Your task to perform on an android device: allow cookies in the chrome app Image 0: 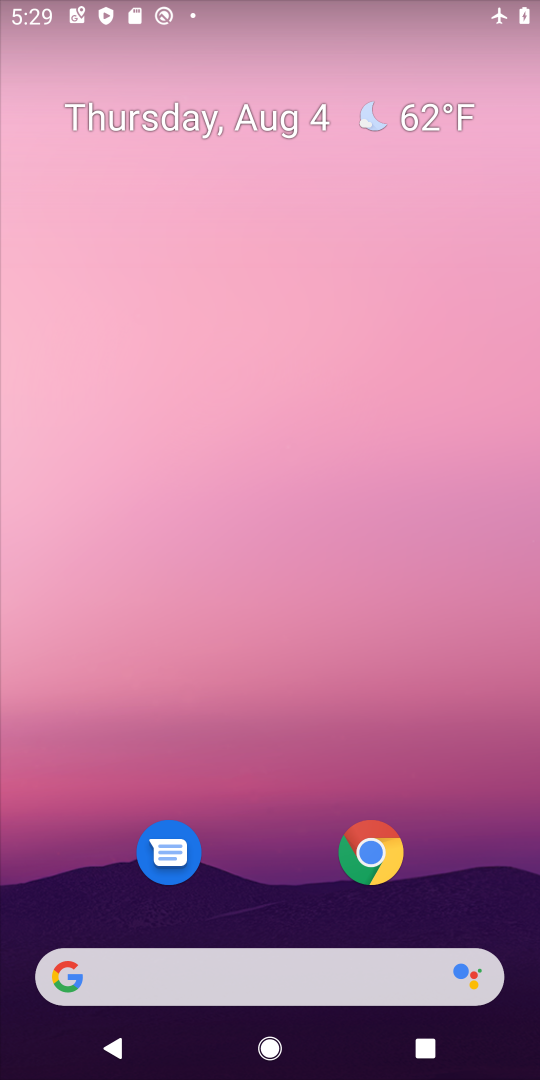
Step 0: press home button
Your task to perform on an android device: allow cookies in the chrome app Image 1: 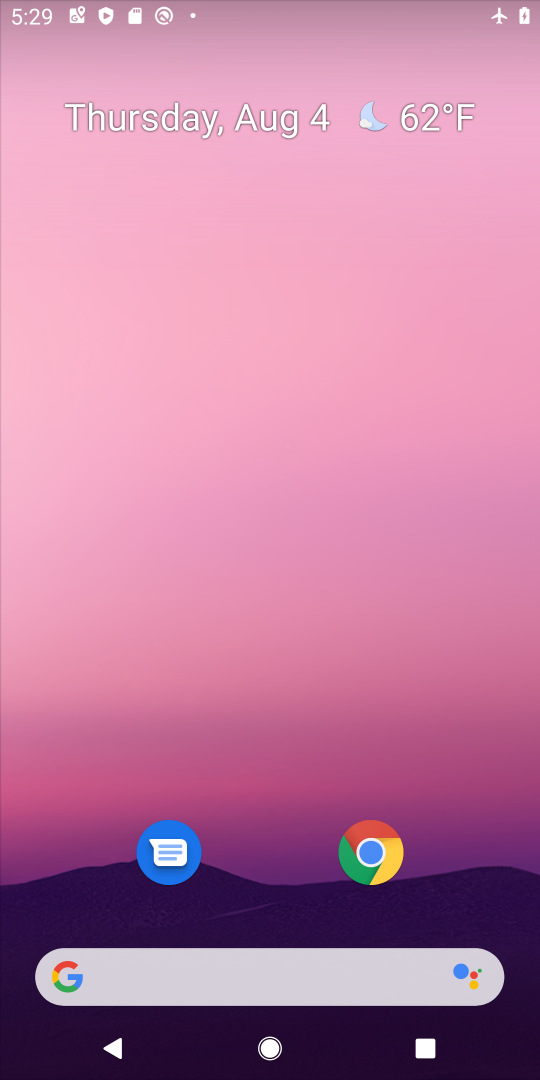
Step 1: drag from (296, 913) to (292, 68)
Your task to perform on an android device: allow cookies in the chrome app Image 2: 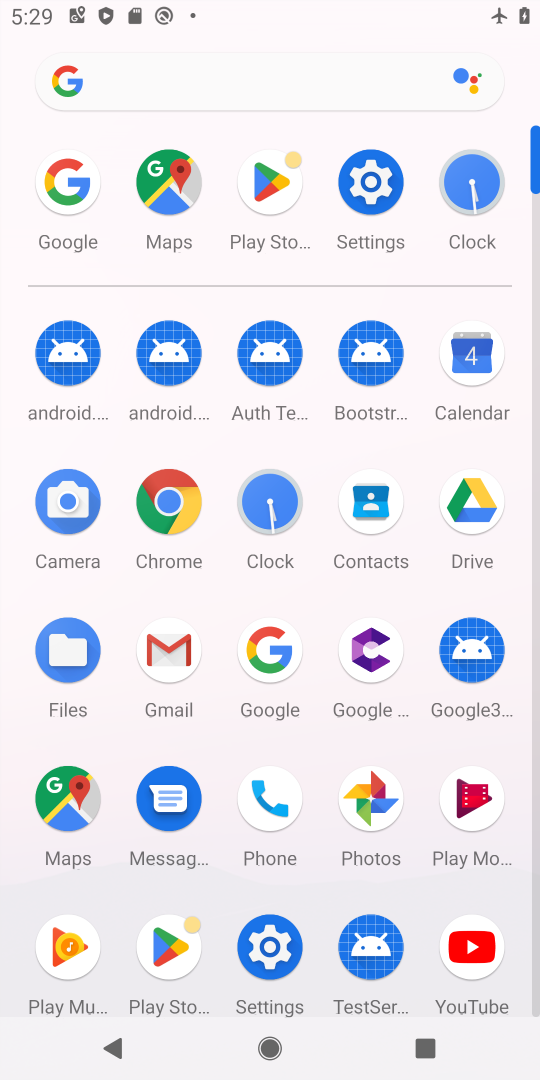
Step 2: click (172, 506)
Your task to perform on an android device: allow cookies in the chrome app Image 3: 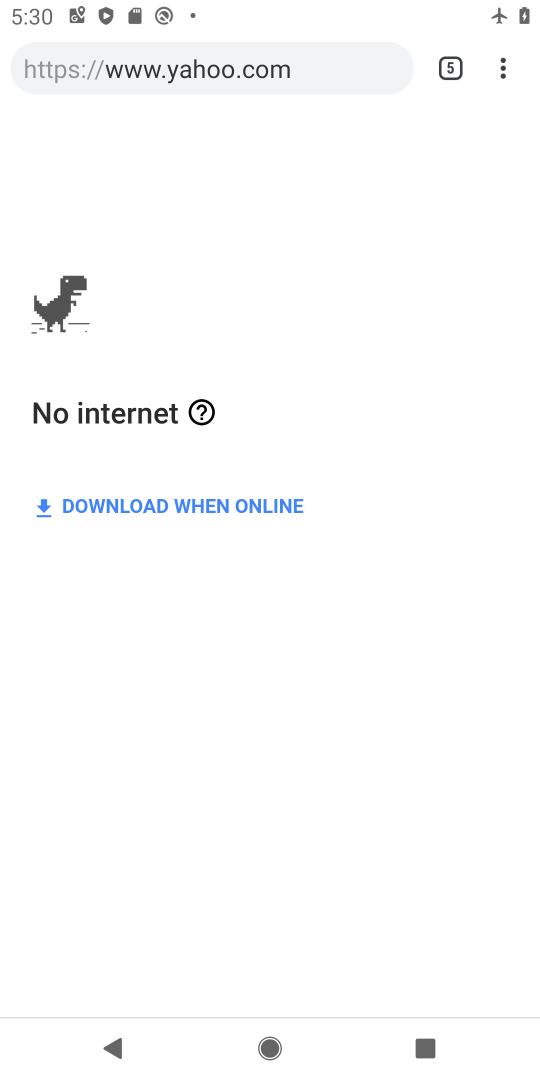
Step 3: click (507, 80)
Your task to perform on an android device: allow cookies in the chrome app Image 4: 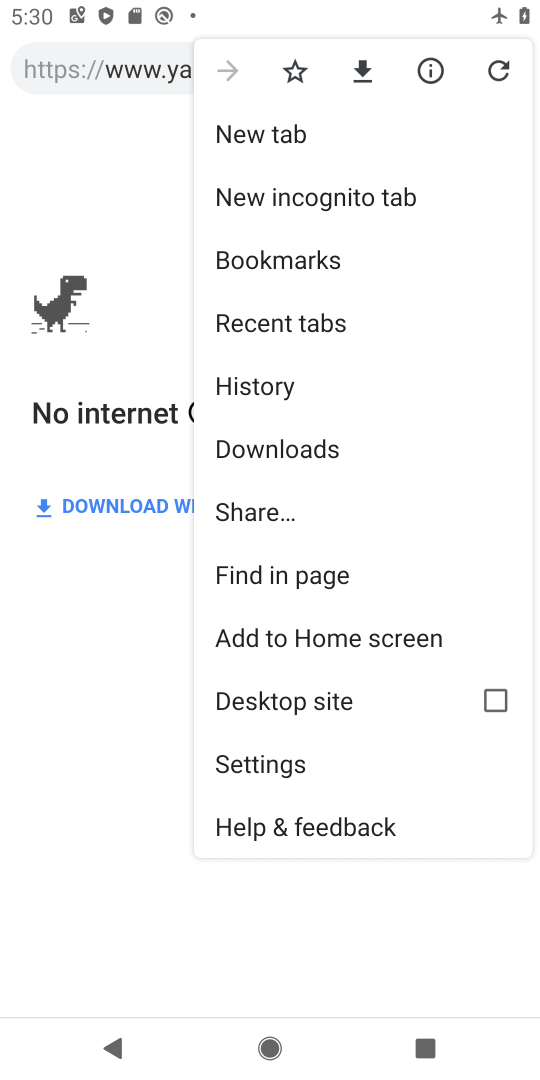
Step 4: click (266, 761)
Your task to perform on an android device: allow cookies in the chrome app Image 5: 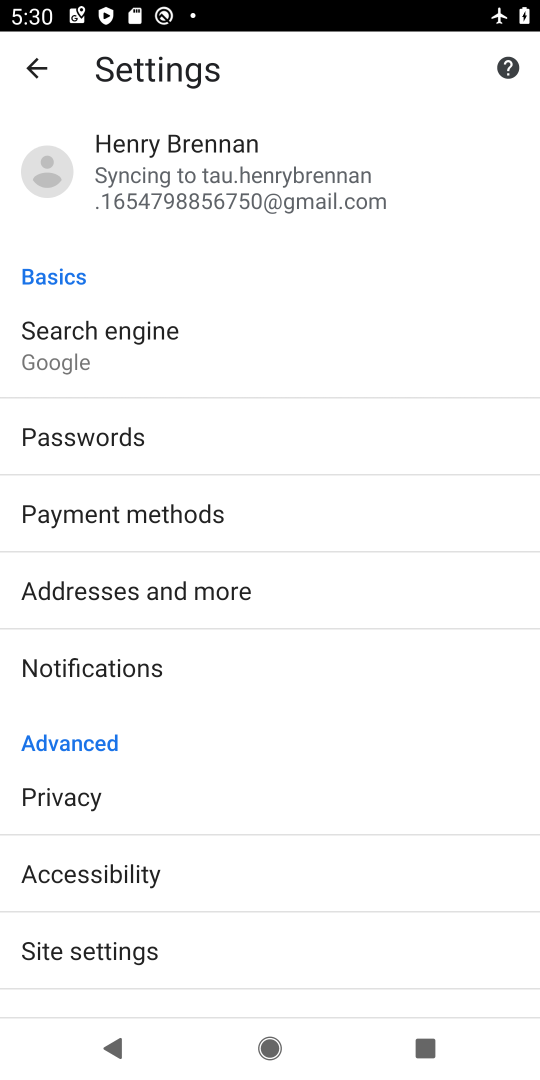
Step 5: click (72, 943)
Your task to perform on an android device: allow cookies in the chrome app Image 6: 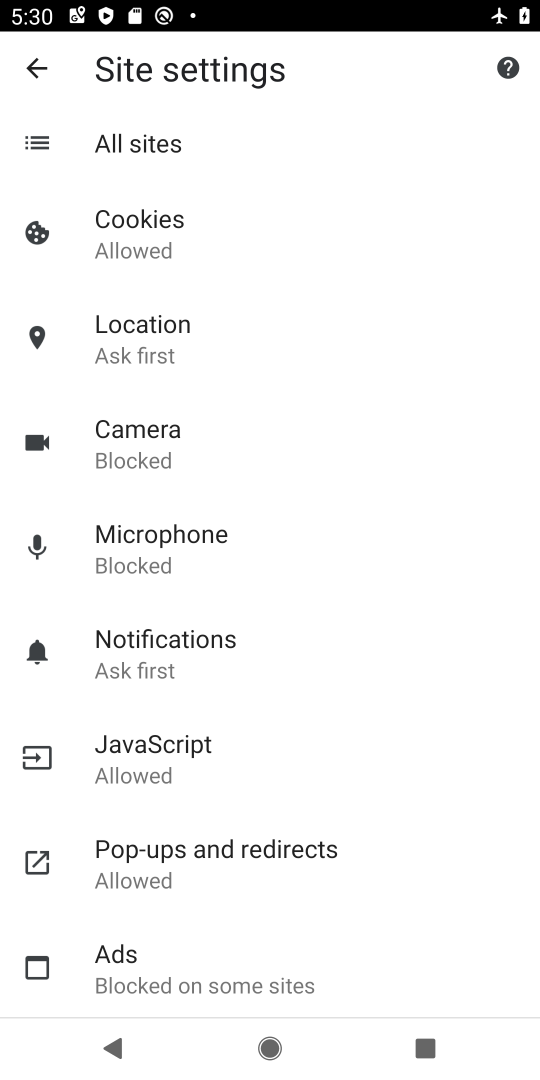
Step 6: click (121, 230)
Your task to perform on an android device: allow cookies in the chrome app Image 7: 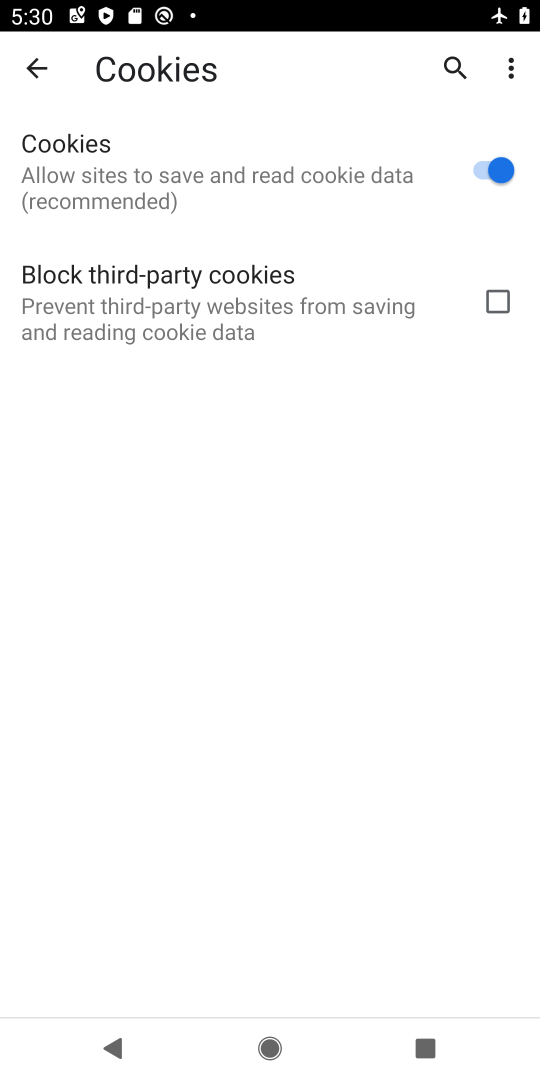
Step 7: task complete